Your task to perform on an android device: read, delete, or share a saved page in the chrome app Image 0: 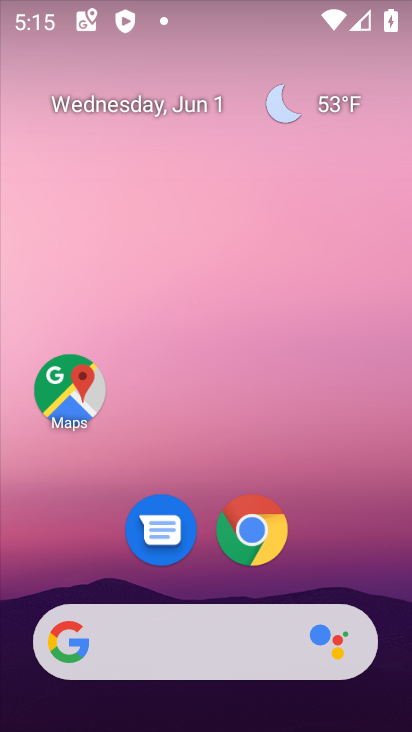
Step 0: drag from (228, 574) to (213, 100)
Your task to perform on an android device: read, delete, or share a saved page in the chrome app Image 1: 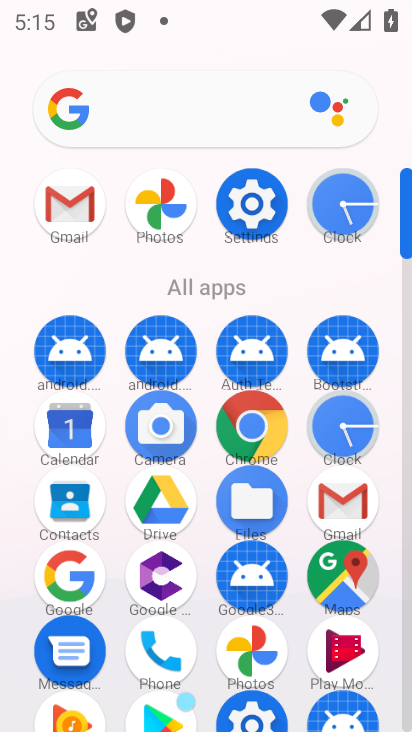
Step 1: click (244, 423)
Your task to perform on an android device: read, delete, or share a saved page in the chrome app Image 2: 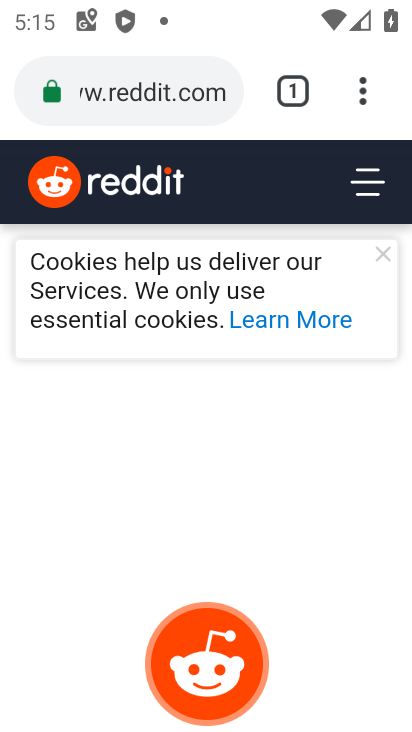
Step 2: click (366, 99)
Your task to perform on an android device: read, delete, or share a saved page in the chrome app Image 3: 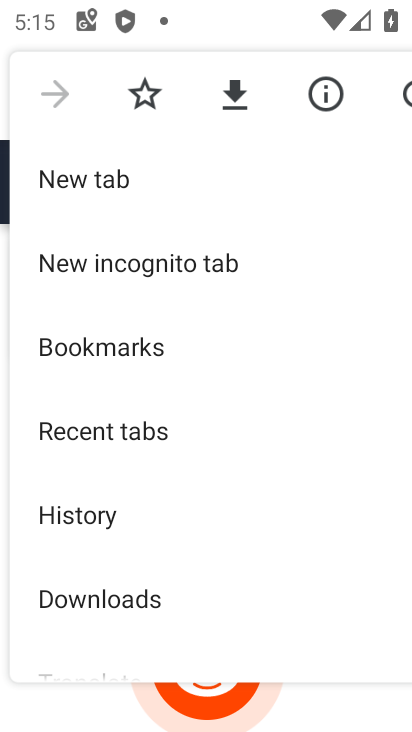
Step 3: task complete